Your task to perform on an android device: toggle sleep mode Image 0: 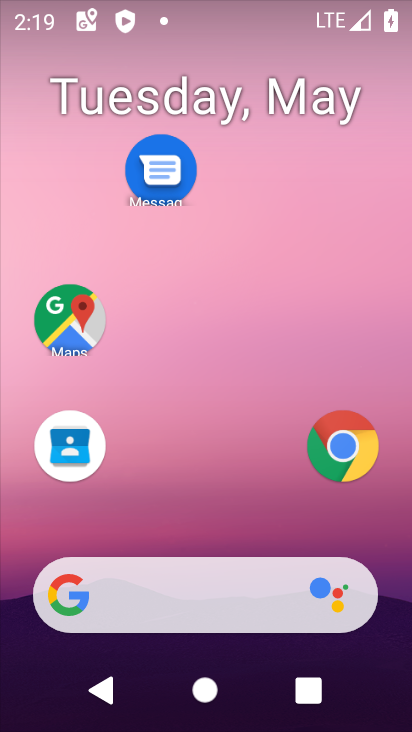
Step 0: drag from (202, 566) to (195, 0)
Your task to perform on an android device: toggle sleep mode Image 1: 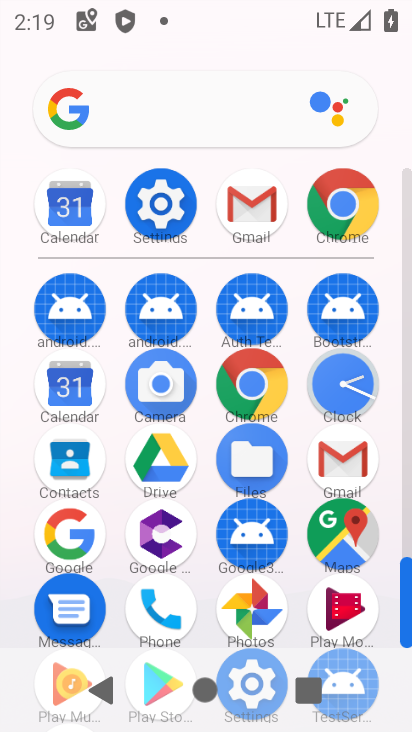
Step 1: click (182, 187)
Your task to perform on an android device: toggle sleep mode Image 2: 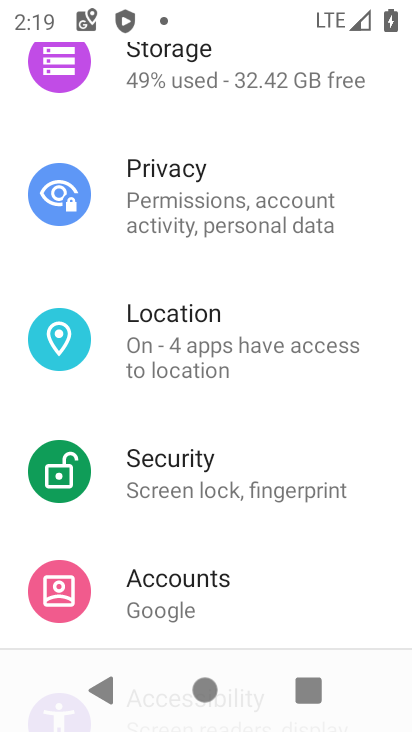
Step 2: task complete